Your task to perform on an android device: see creations saved in the google photos Image 0: 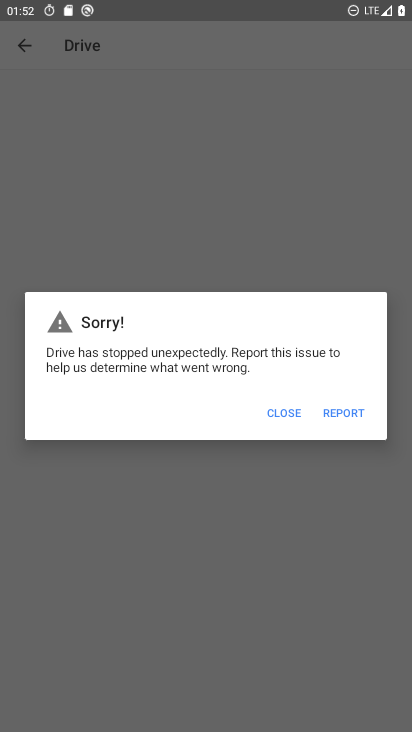
Step 0: press home button
Your task to perform on an android device: see creations saved in the google photos Image 1: 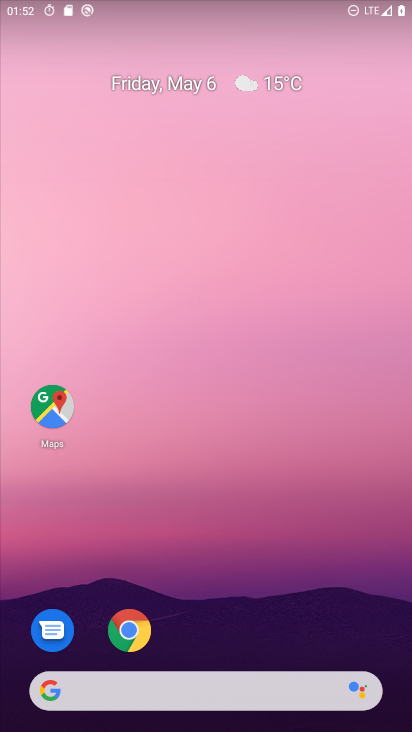
Step 1: drag from (292, 588) to (337, 93)
Your task to perform on an android device: see creations saved in the google photos Image 2: 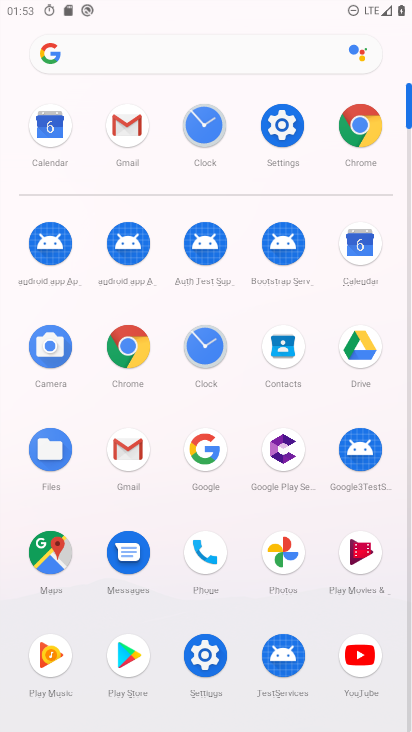
Step 2: click (283, 547)
Your task to perform on an android device: see creations saved in the google photos Image 3: 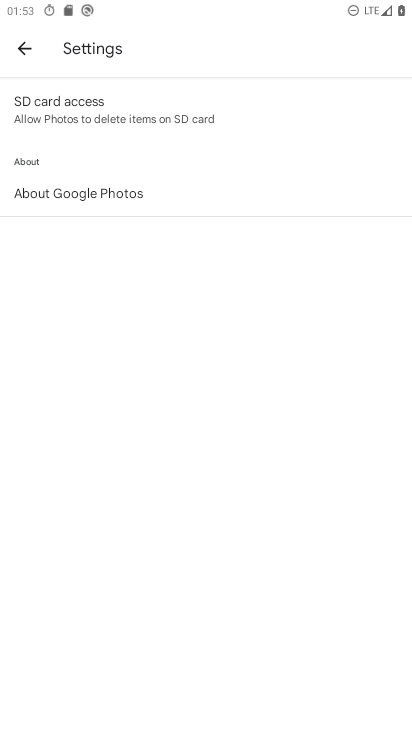
Step 3: click (29, 53)
Your task to perform on an android device: see creations saved in the google photos Image 4: 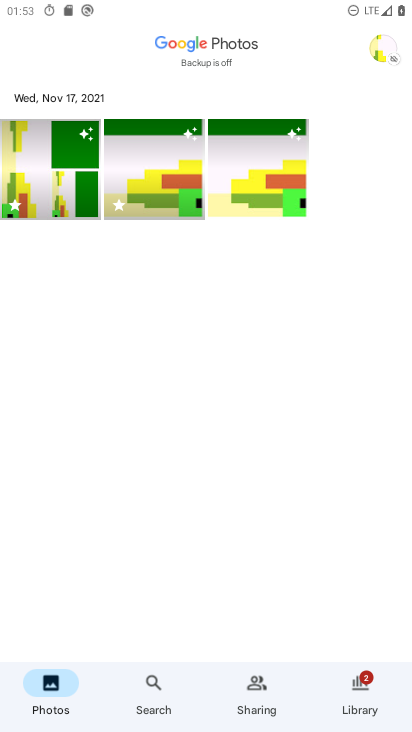
Step 4: click (373, 666)
Your task to perform on an android device: see creations saved in the google photos Image 5: 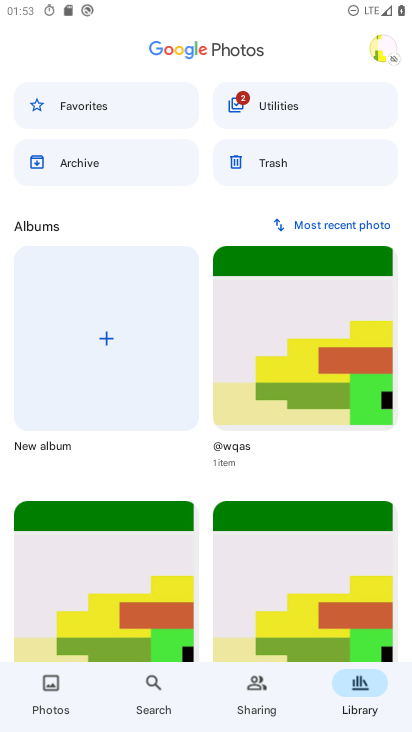
Step 5: click (279, 102)
Your task to perform on an android device: see creations saved in the google photos Image 6: 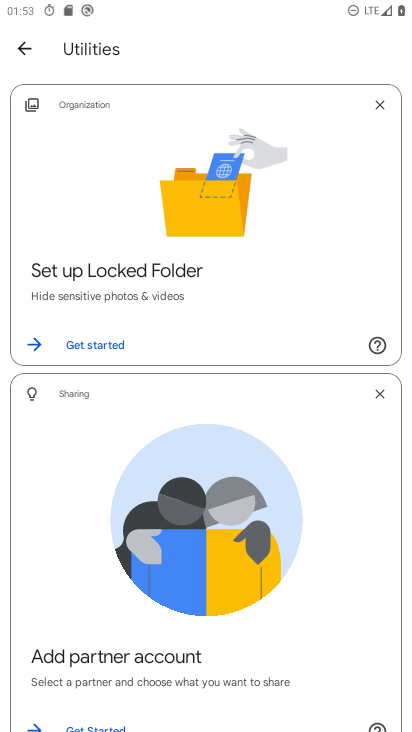
Step 6: drag from (327, 562) to (277, 168)
Your task to perform on an android device: see creations saved in the google photos Image 7: 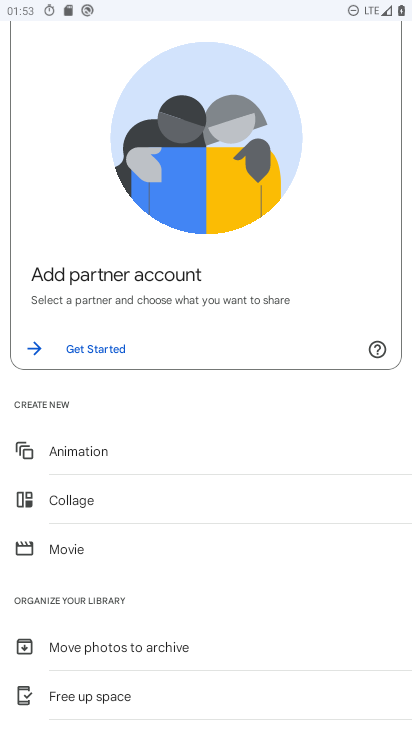
Step 7: drag from (248, 601) to (182, 321)
Your task to perform on an android device: see creations saved in the google photos Image 8: 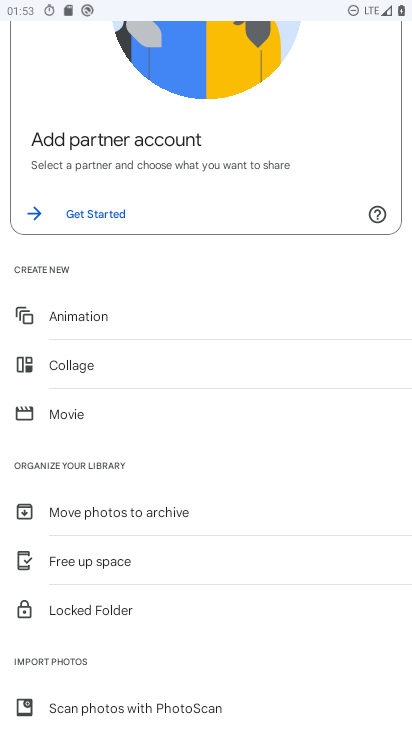
Step 8: drag from (159, 115) to (298, 502)
Your task to perform on an android device: see creations saved in the google photos Image 9: 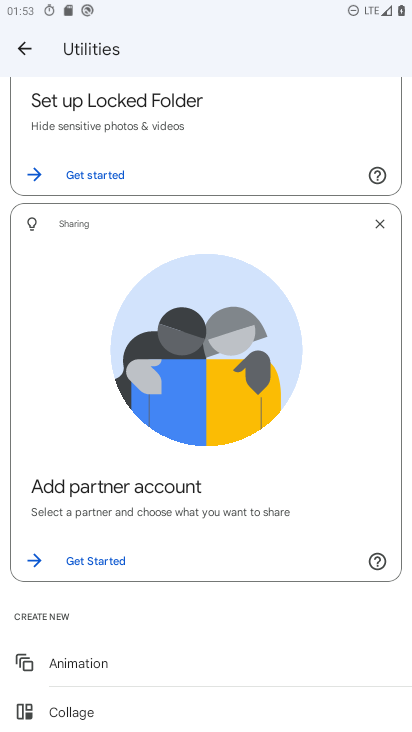
Step 9: click (20, 53)
Your task to perform on an android device: see creations saved in the google photos Image 10: 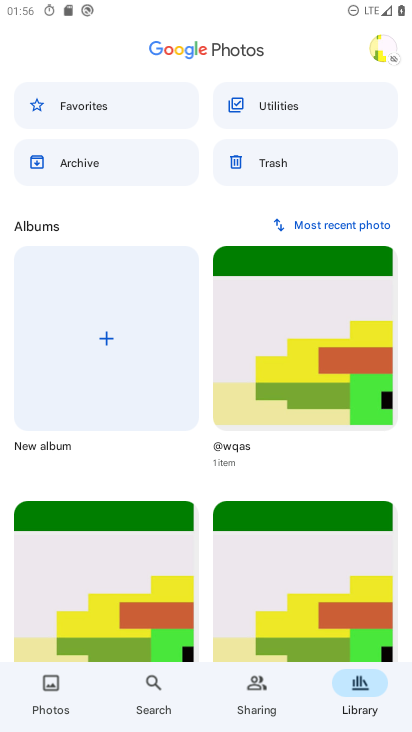
Step 10: task complete